Your task to perform on an android device: Open internet settings Image 0: 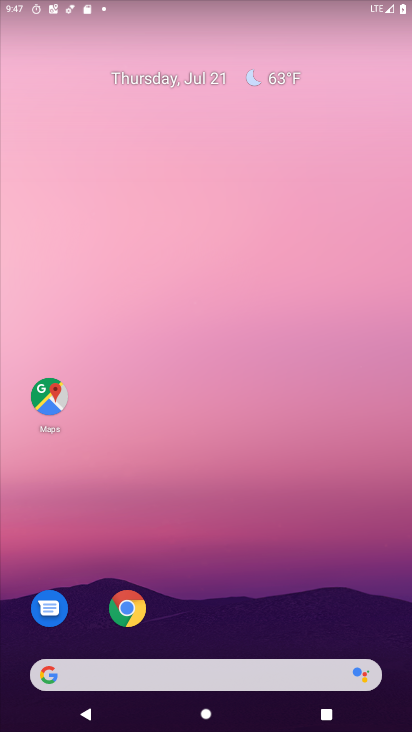
Step 0: drag from (138, 591) to (270, 39)
Your task to perform on an android device: Open internet settings Image 1: 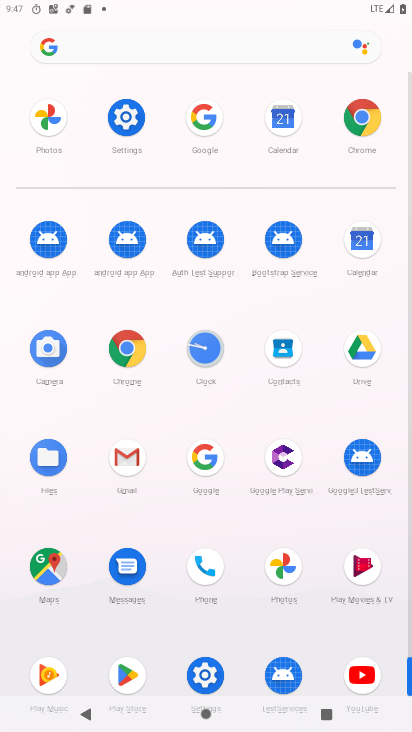
Step 1: click (131, 137)
Your task to perform on an android device: Open internet settings Image 2: 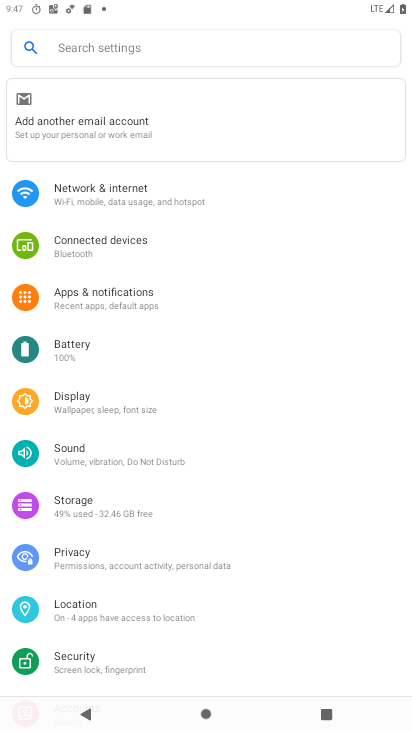
Step 2: click (129, 191)
Your task to perform on an android device: Open internet settings Image 3: 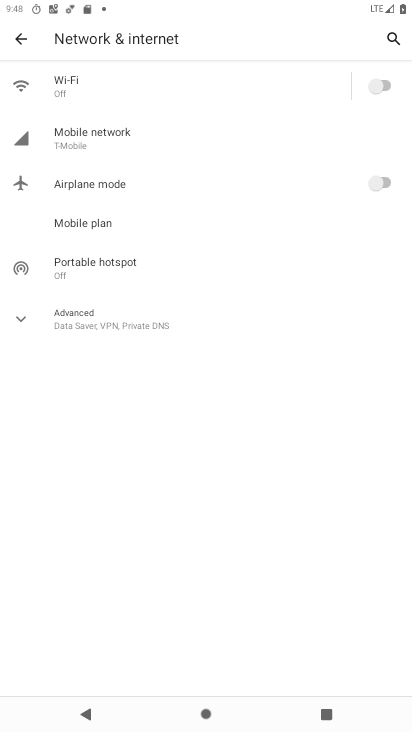
Step 3: click (151, 136)
Your task to perform on an android device: Open internet settings Image 4: 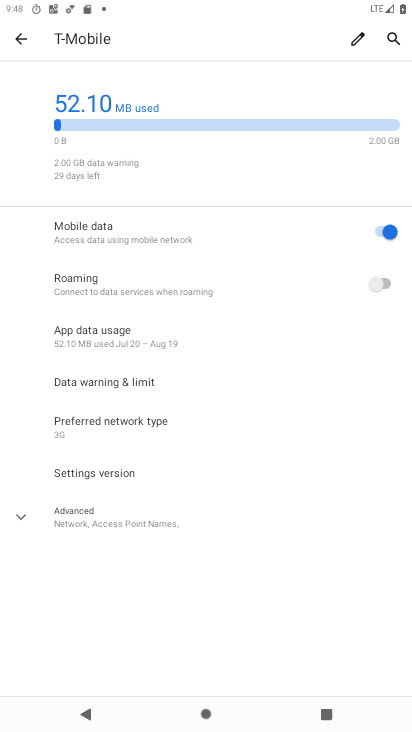
Step 4: task complete